Your task to perform on an android device: Open calendar and show me the second week of next month Image 0: 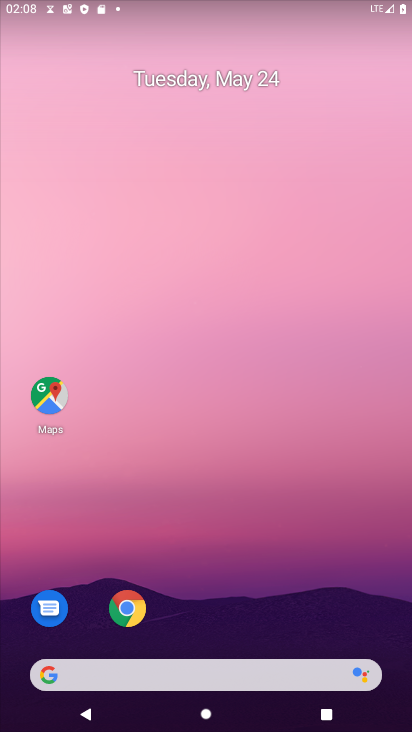
Step 0: drag from (241, 578) to (241, 279)
Your task to perform on an android device: Open calendar and show me the second week of next month Image 1: 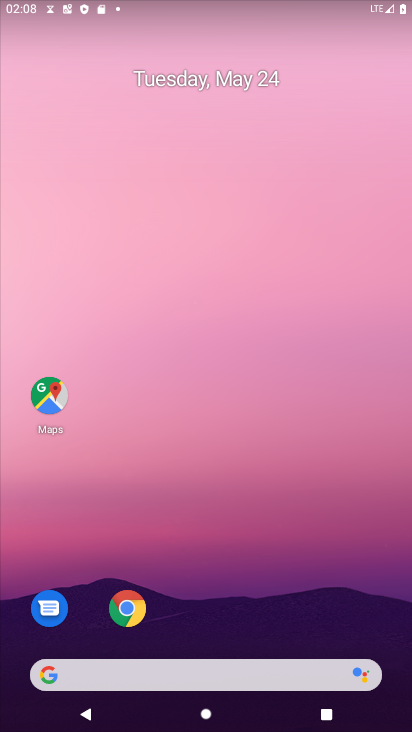
Step 1: drag from (265, 628) to (274, 177)
Your task to perform on an android device: Open calendar and show me the second week of next month Image 2: 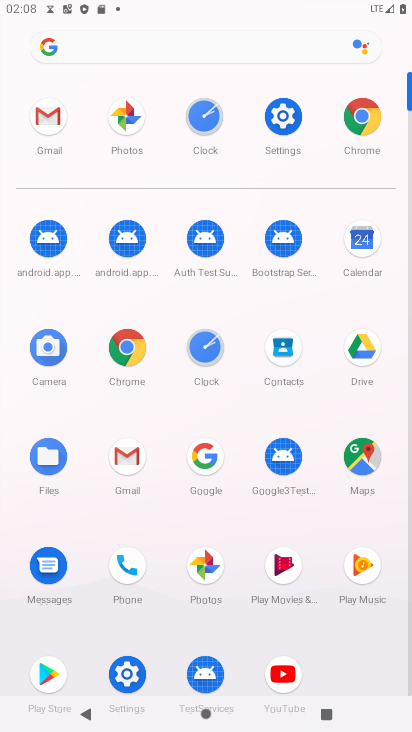
Step 2: click (370, 225)
Your task to perform on an android device: Open calendar and show me the second week of next month Image 3: 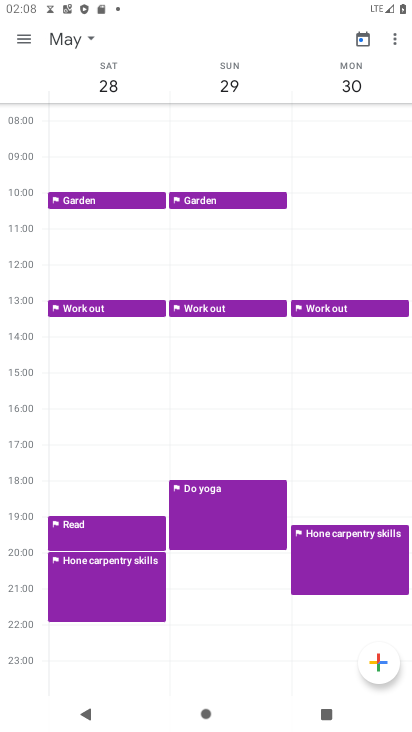
Step 3: click (29, 46)
Your task to perform on an android device: Open calendar and show me the second week of next month Image 4: 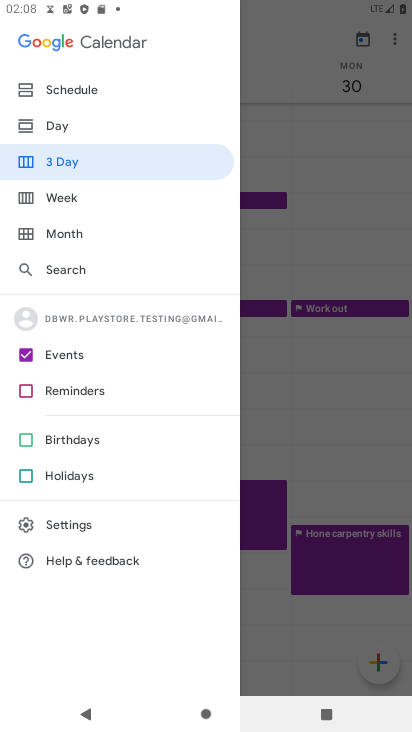
Step 4: click (59, 192)
Your task to perform on an android device: Open calendar and show me the second week of next month Image 5: 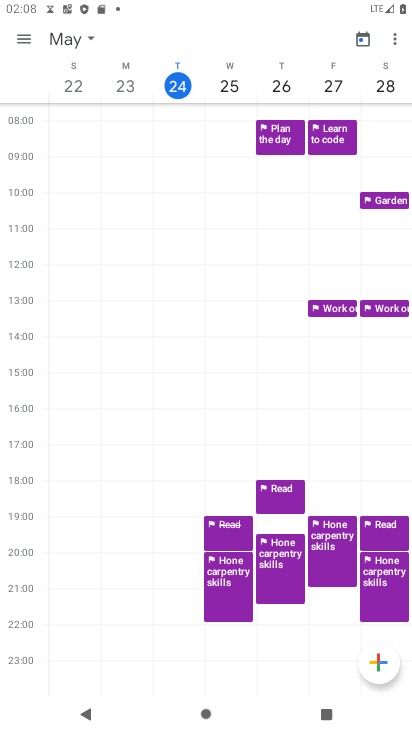
Step 5: click (81, 36)
Your task to perform on an android device: Open calendar and show me the second week of next month Image 6: 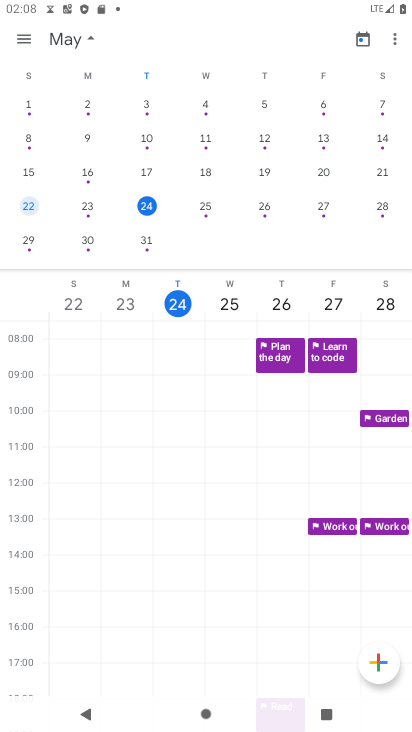
Step 6: drag from (371, 176) to (18, 171)
Your task to perform on an android device: Open calendar and show me the second week of next month Image 7: 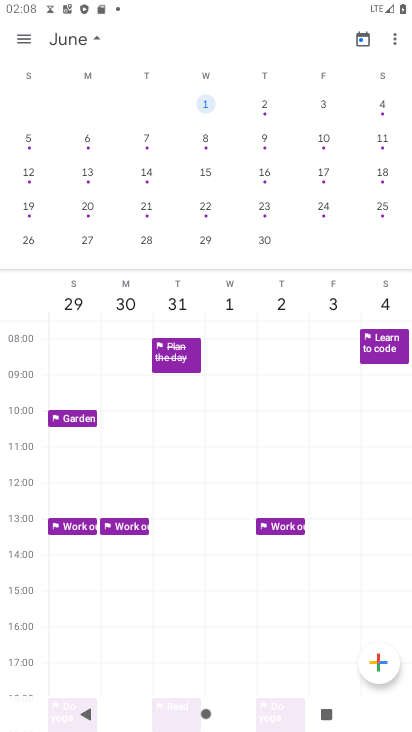
Step 7: click (191, 139)
Your task to perform on an android device: Open calendar and show me the second week of next month Image 8: 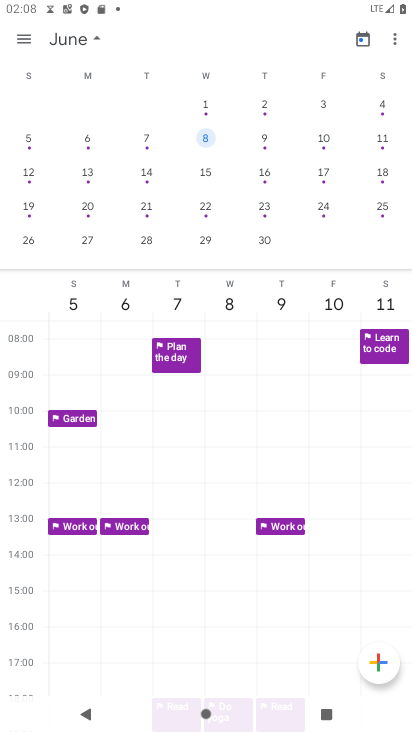
Step 8: task complete